Your task to perform on an android device: What is the news today? Image 0: 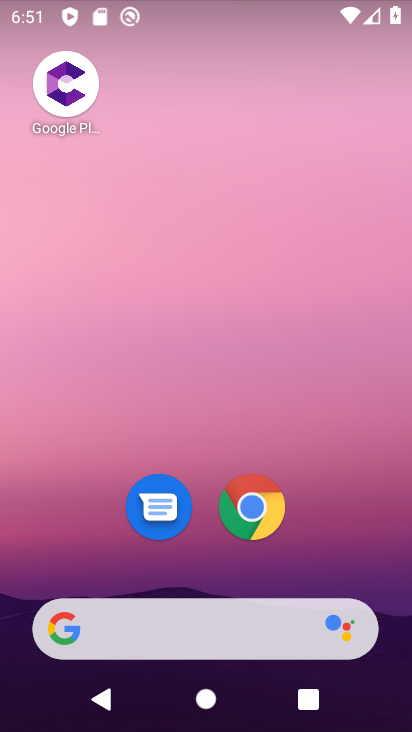
Step 0: click (263, 524)
Your task to perform on an android device: What is the news today? Image 1: 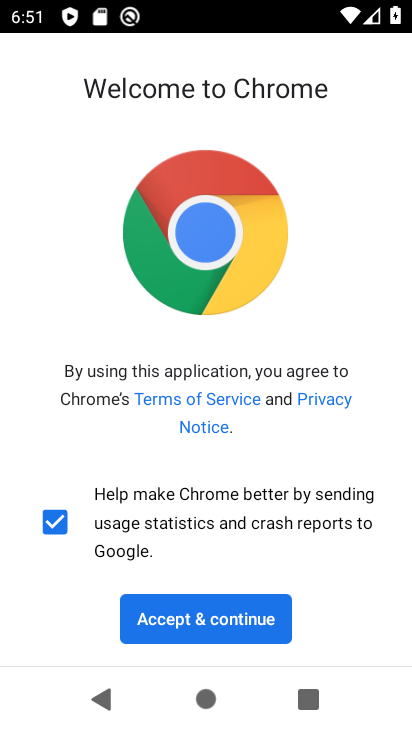
Step 1: click (254, 609)
Your task to perform on an android device: What is the news today? Image 2: 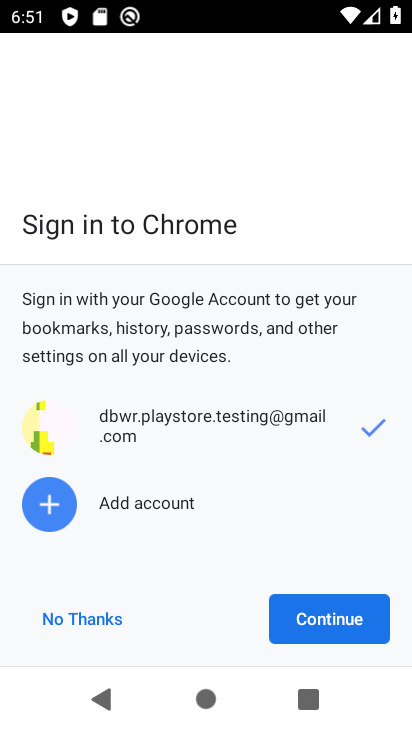
Step 2: click (371, 636)
Your task to perform on an android device: What is the news today? Image 3: 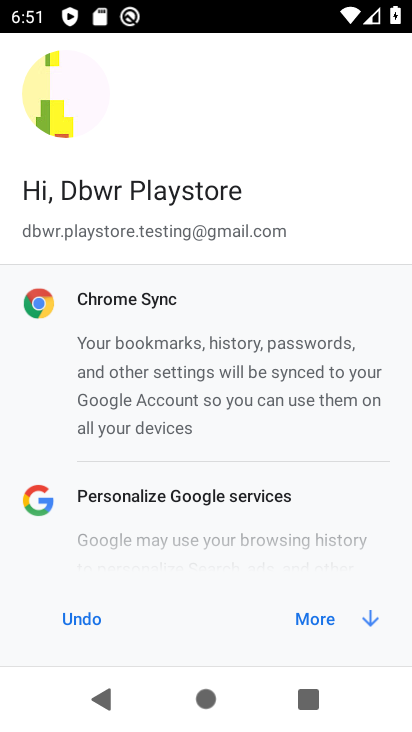
Step 3: click (371, 636)
Your task to perform on an android device: What is the news today? Image 4: 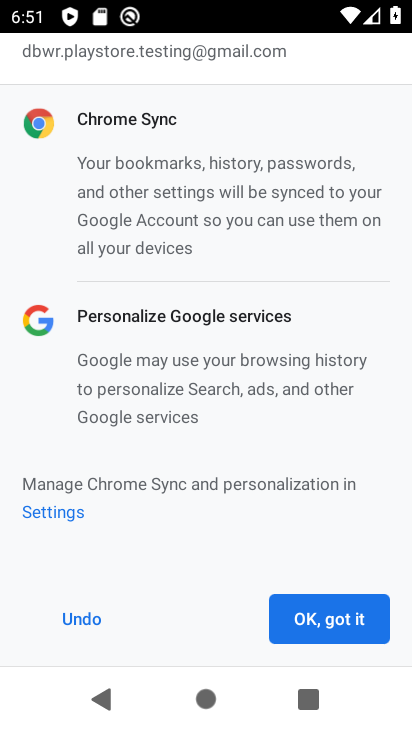
Step 4: click (356, 627)
Your task to perform on an android device: What is the news today? Image 5: 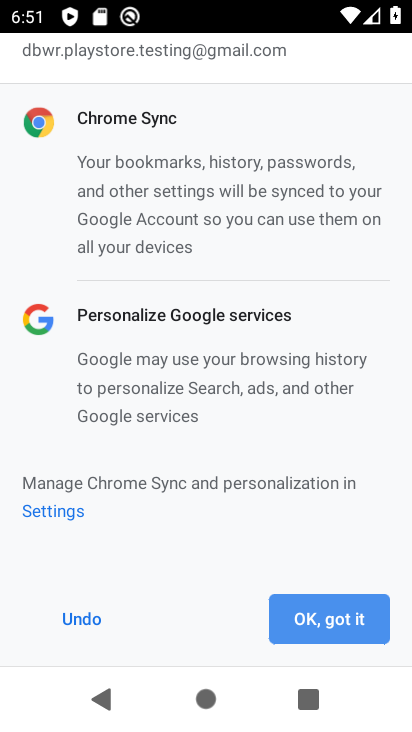
Step 5: click (356, 627)
Your task to perform on an android device: What is the news today? Image 6: 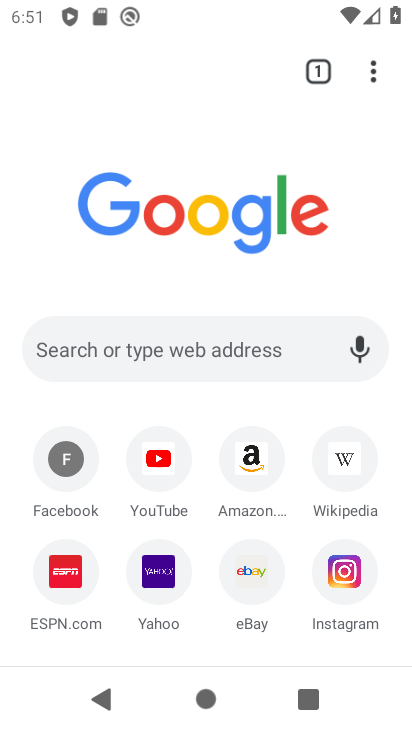
Step 6: click (298, 354)
Your task to perform on an android device: What is the news today? Image 7: 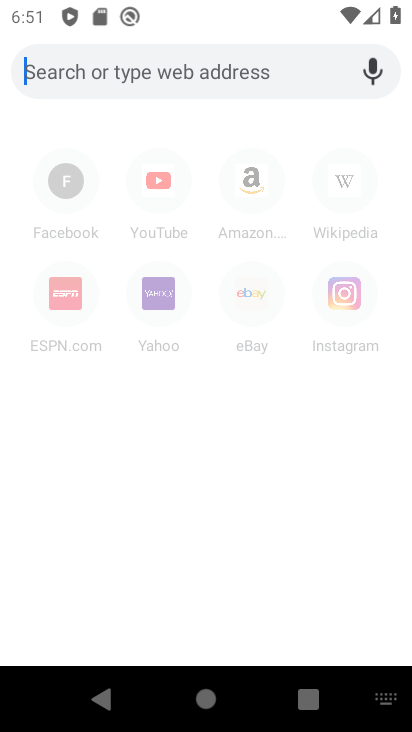
Step 7: type "What is the news today?"
Your task to perform on an android device: What is the news today? Image 8: 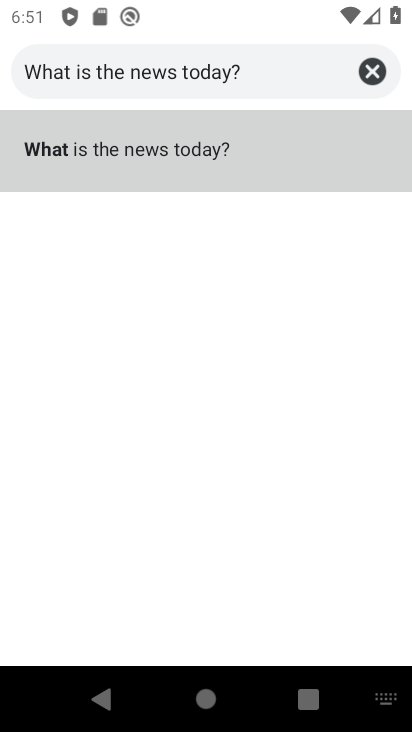
Step 8: click (192, 157)
Your task to perform on an android device: What is the news today? Image 9: 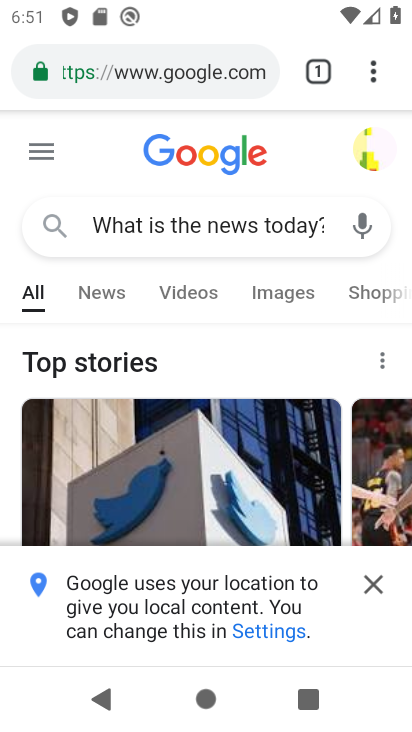
Step 9: click (364, 579)
Your task to perform on an android device: What is the news today? Image 10: 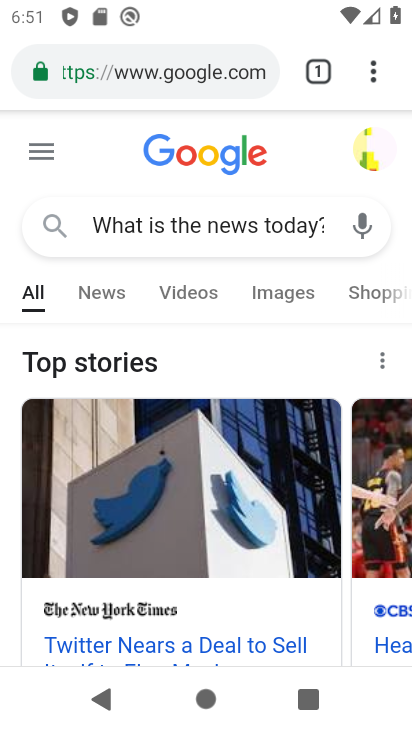
Step 10: task complete